Your task to perform on an android device: Toggle the flashlight Image 0: 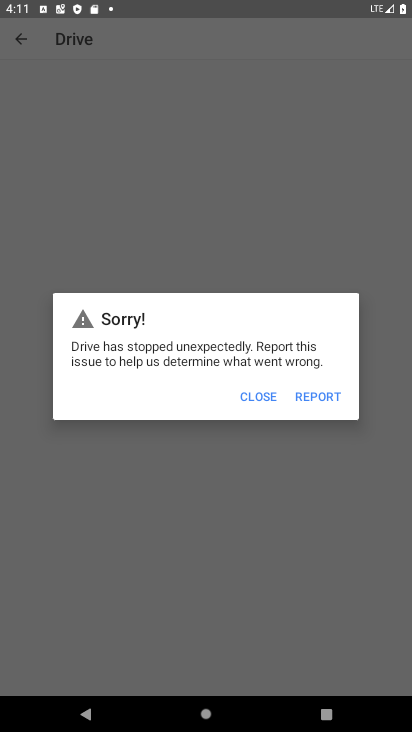
Step 0: press home button
Your task to perform on an android device: Toggle the flashlight Image 1: 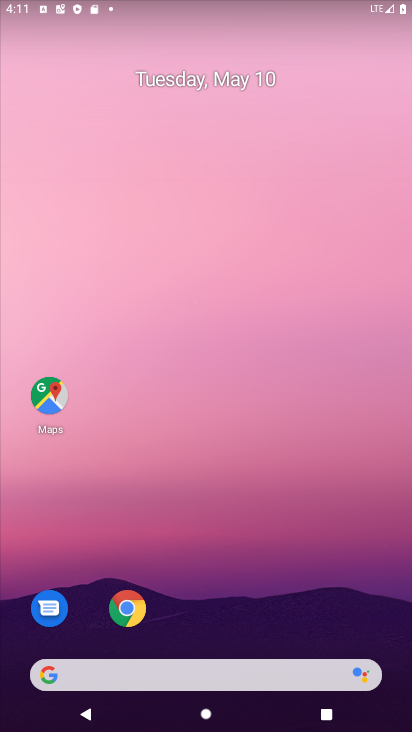
Step 1: drag from (218, 19) to (265, 572)
Your task to perform on an android device: Toggle the flashlight Image 2: 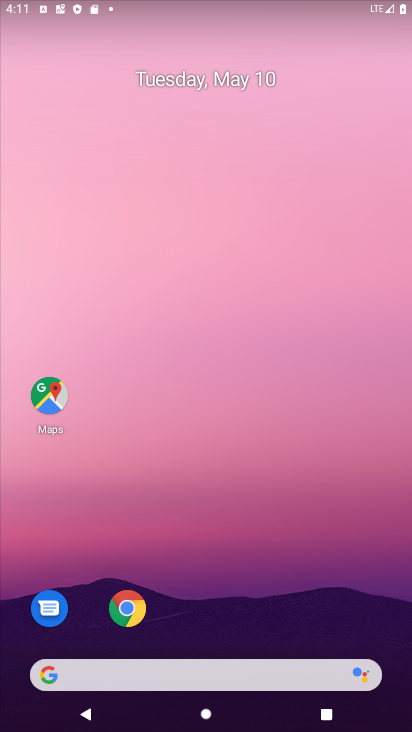
Step 2: drag from (241, 27) to (180, 466)
Your task to perform on an android device: Toggle the flashlight Image 3: 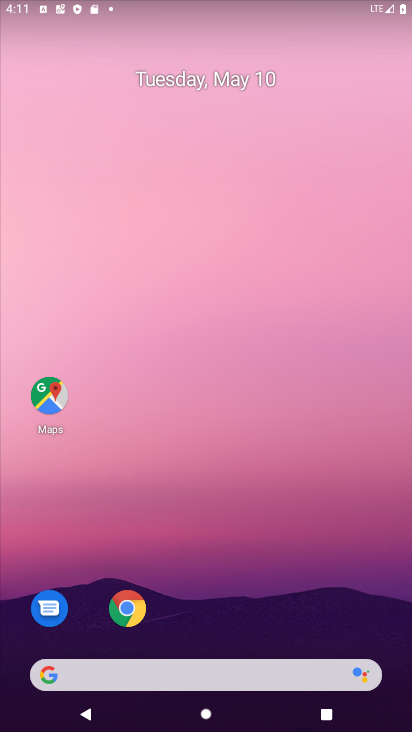
Step 3: drag from (231, 13) to (248, 467)
Your task to perform on an android device: Toggle the flashlight Image 4: 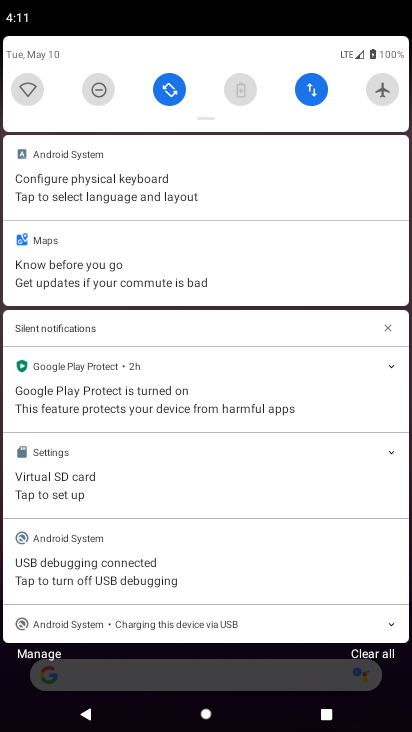
Step 4: drag from (207, 120) to (192, 481)
Your task to perform on an android device: Toggle the flashlight Image 5: 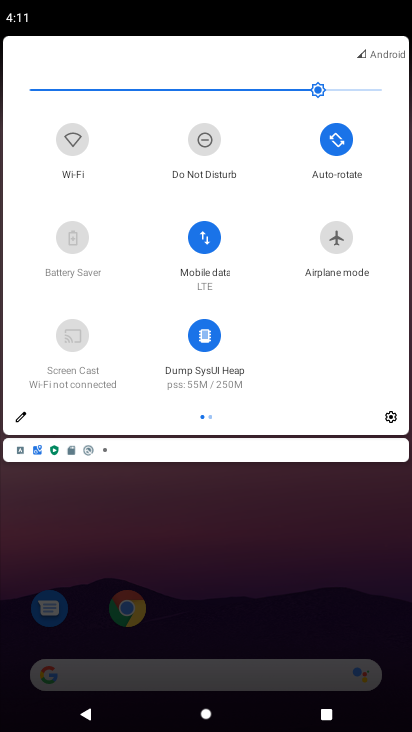
Step 5: click (15, 415)
Your task to perform on an android device: Toggle the flashlight Image 6: 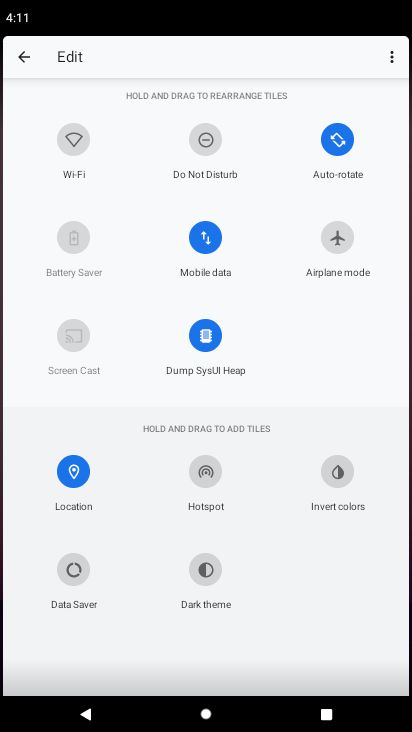
Step 6: task complete